Your task to perform on an android device: Set the phone to "Do not disturb". Image 0: 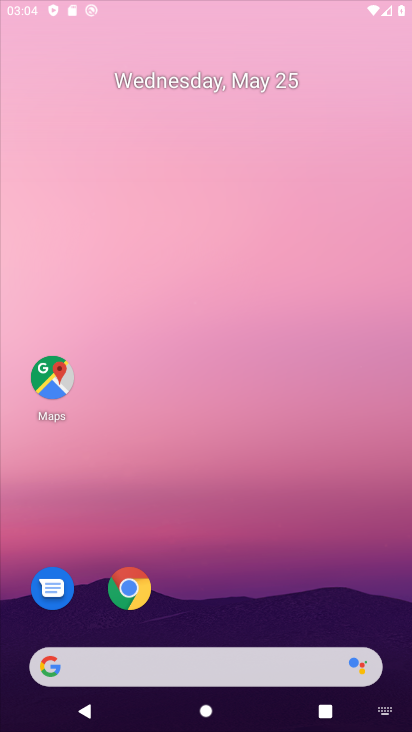
Step 0: press home button
Your task to perform on an android device: Set the phone to "Do not disturb". Image 1: 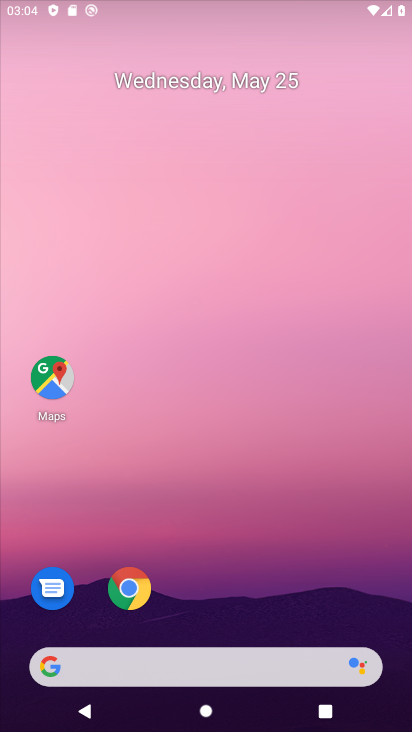
Step 1: drag from (262, 599) to (289, 53)
Your task to perform on an android device: Set the phone to "Do not disturb". Image 2: 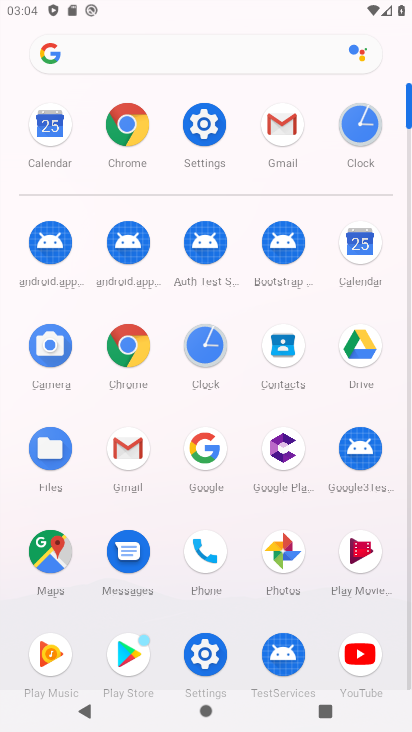
Step 2: drag from (299, 4) to (212, 497)
Your task to perform on an android device: Set the phone to "Do not disturb". Image 3: 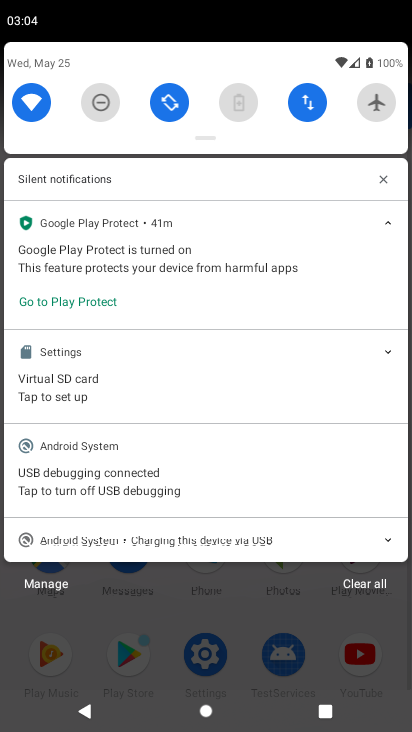
Step 3: click (99, 103)
Your task to perform on an android device: Set the phone to "Do not disturb". Image 4: 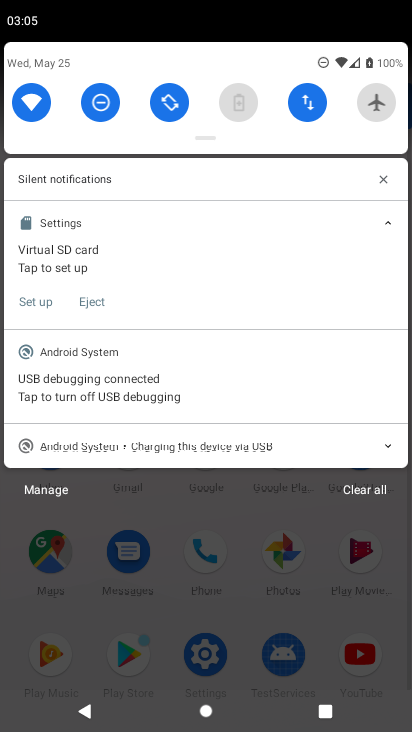
Step 4: task complete